Your task to perform on an android device: change keyboard looks Image 0: 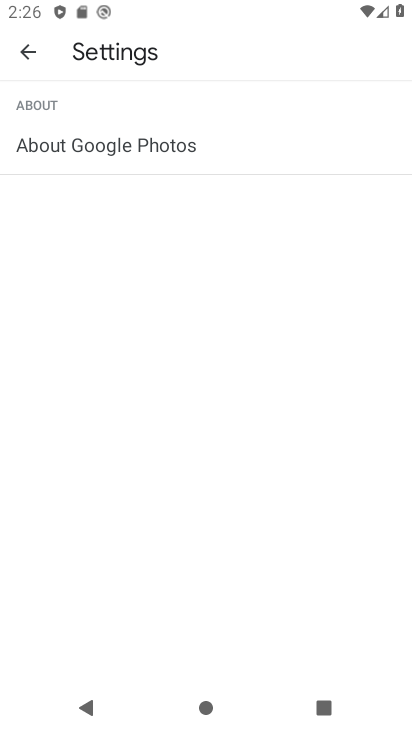
Step 0: press home button
Your task to perform on an android device: change keyboard looks Image 1: 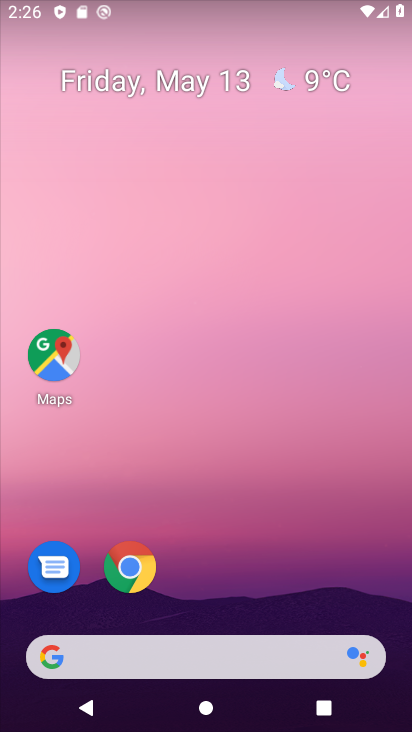
Step 1: drag from (253, 603) to (244, 24)
Your task to perform on an android device: change keyboard looks Image 2: 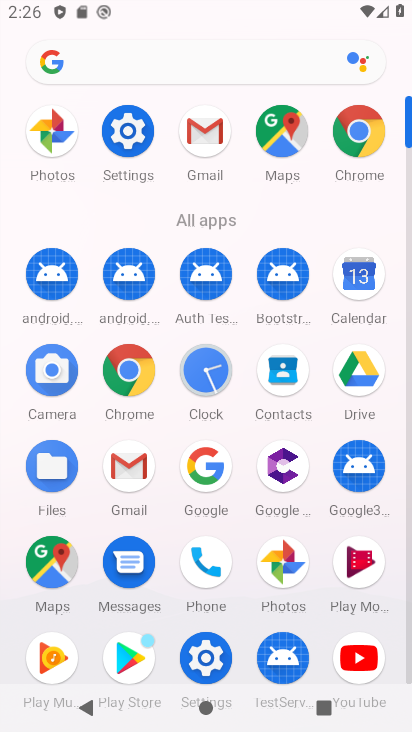
Step 2: click (132, 135)
Your task to perform on an android device: change keyboard looks Image 3: 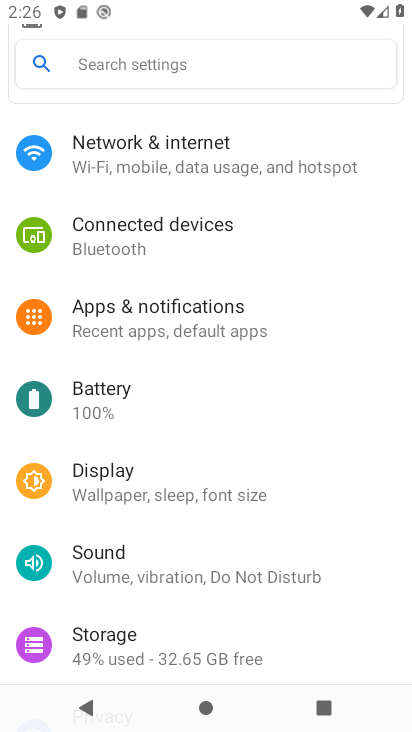
Step 3: drag from (356, 607) to (323, 102)
Your task to perform on an android device: change keyboard looks Image 4: 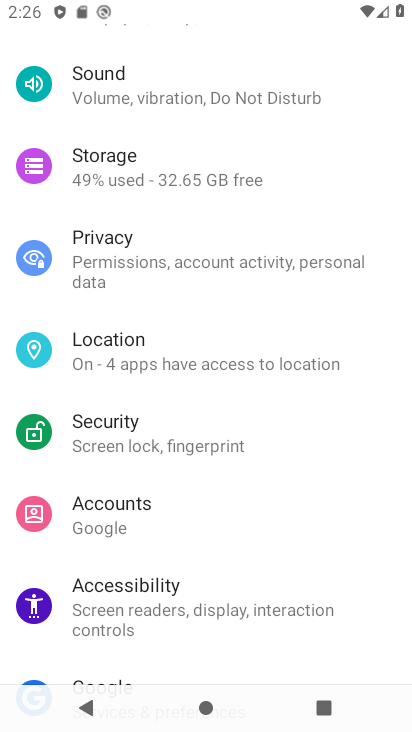
Step 4: drag from (297, 524) to (283, 155)
Your task to perform on an android device: change keyboard looks Image 5: 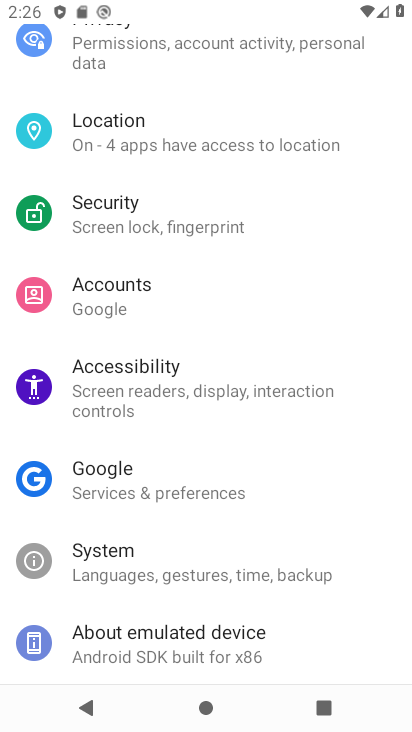
Step 5: click (103, 567)
Your task to perform on an android device: change keyboard looks Image 6: 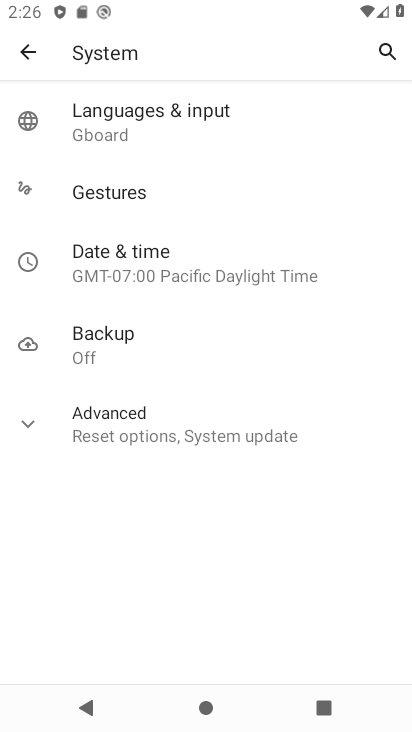
Step 6: click (123, 122)
Your task to perform on an android device: change keyboard looks Image 7: 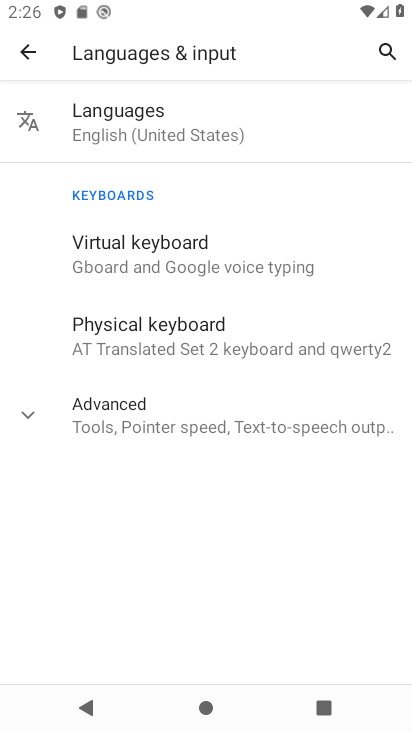
Step 7: click (134, 242)
Your task to perform on an android device: change keyboard looks Image 8: 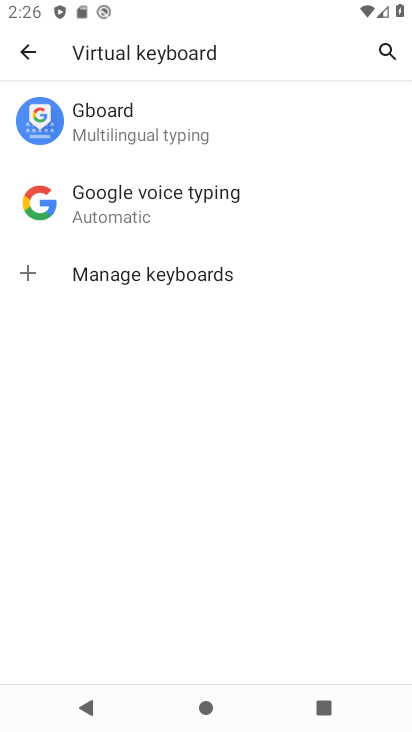
Step 8: click (107, 128)
Your task to perform on an android device: change keyboard looks Image 9: 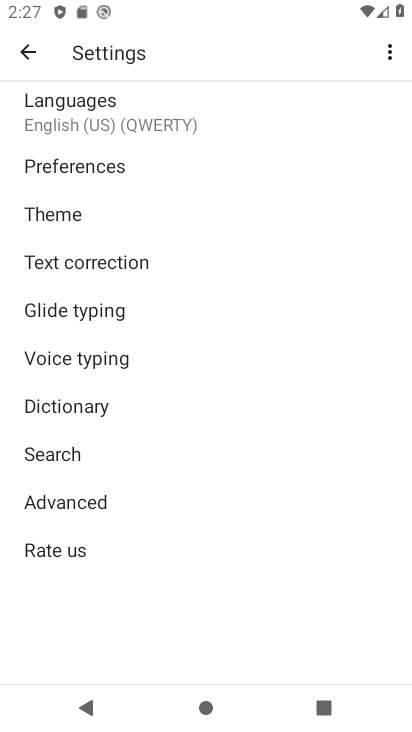
Step 9: click (77, 207)
Your task to perform on an android device: change keyboard looks Image 10: 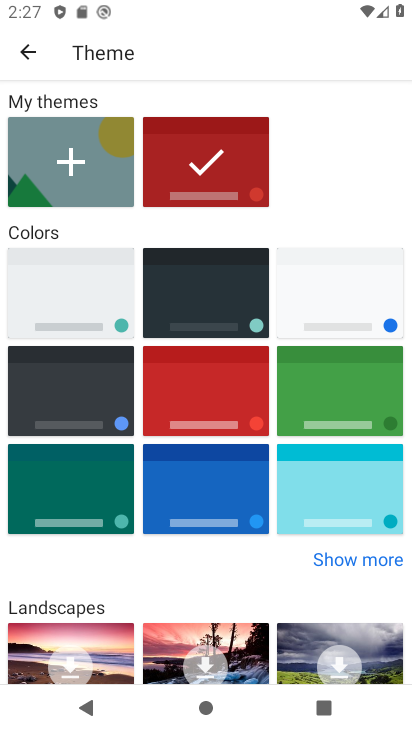
Step 10: click (346, 500)
Your task to perform on an android device: change keyboard looks Image 11: 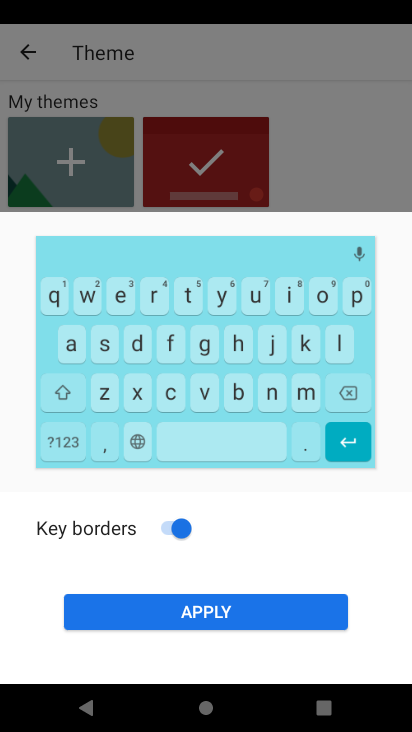
Step 11: click (214, 607)
Your task to perform on an android device: change keyboard looks Image 12: 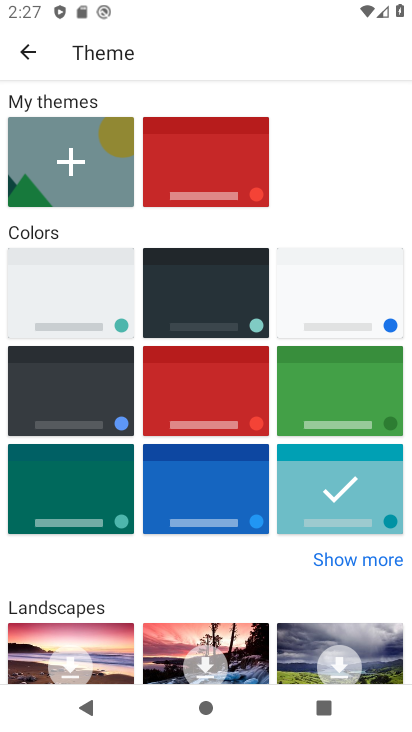
Step 12: task complete